Your task to perform on an android device: turn off improve location accuracy Image 0: 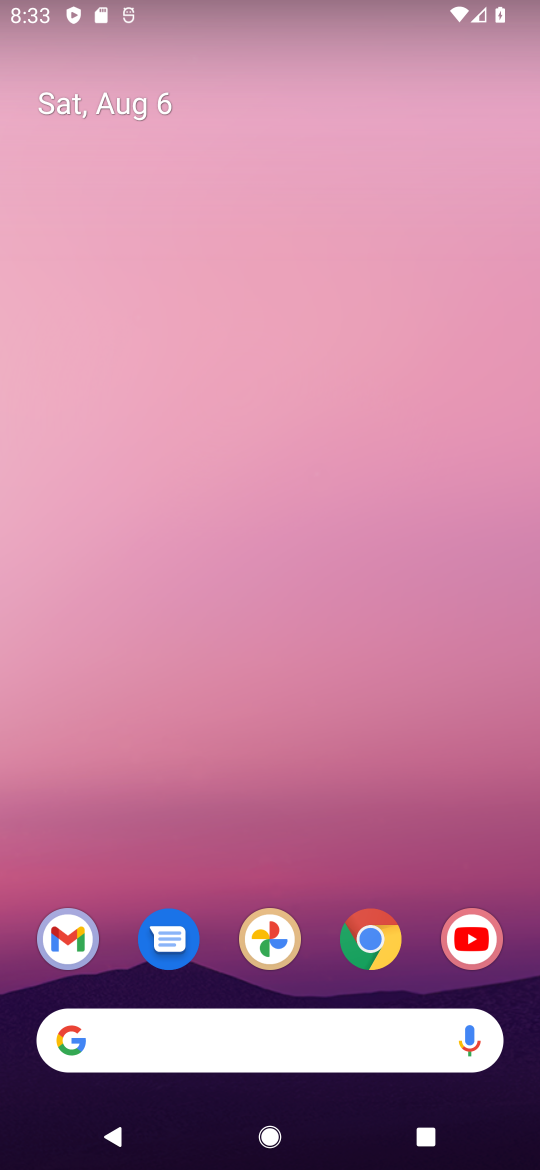
Step 0: drag from (261, 1033) to (270, 121)
Your task to perform on an android device: turn off improve location accuracy Image 1: 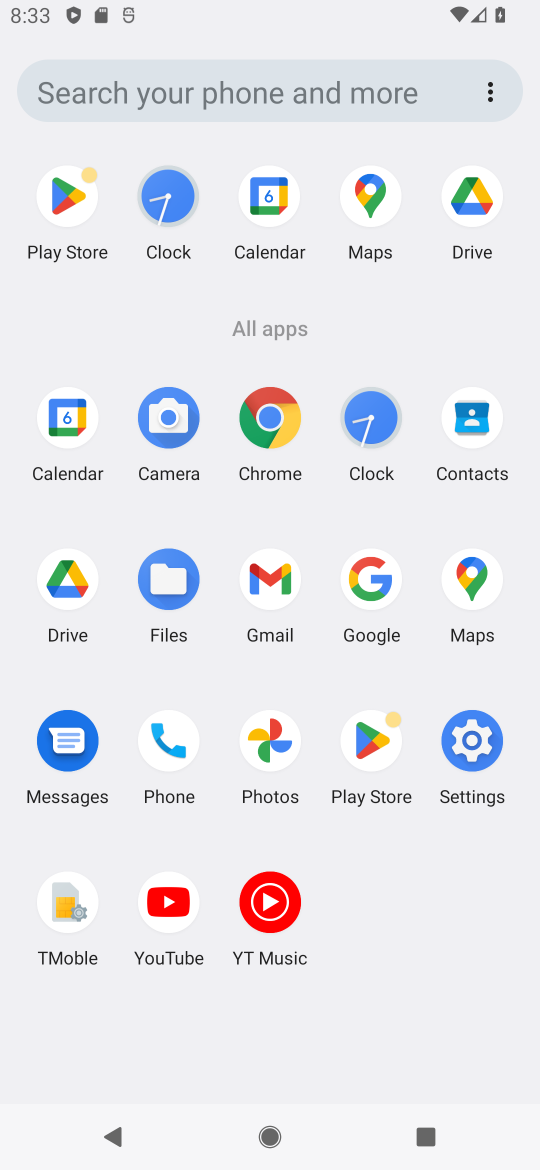
Step 1: click (472, 747)
Your task to perform on an android device: turn off improve location accuracy Image 2: 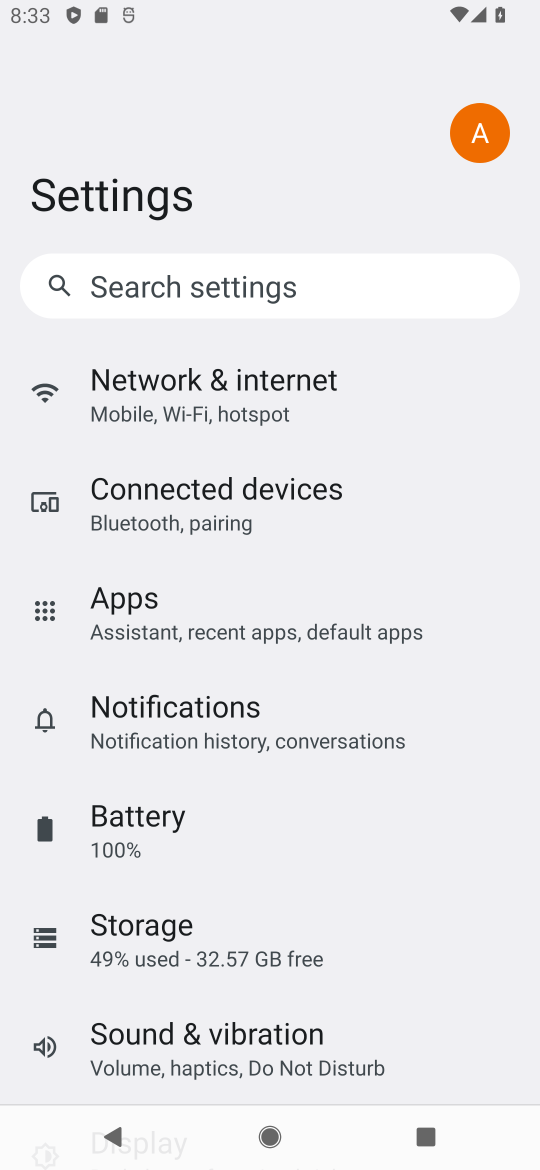
Step 2: drag from (160, 886) to (123, 181)
Your task to perform on an android device: turn off improve location accuracy Image 3: 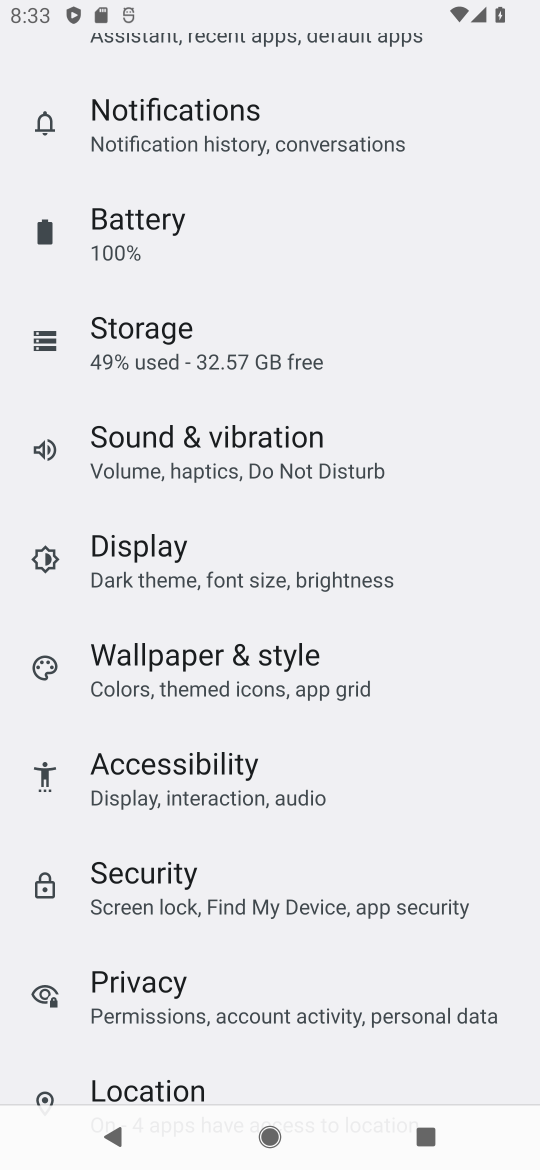
Step 3: click (92, 1074)
Your task to perform on an android device: turn off improve location accuracy Image 4: 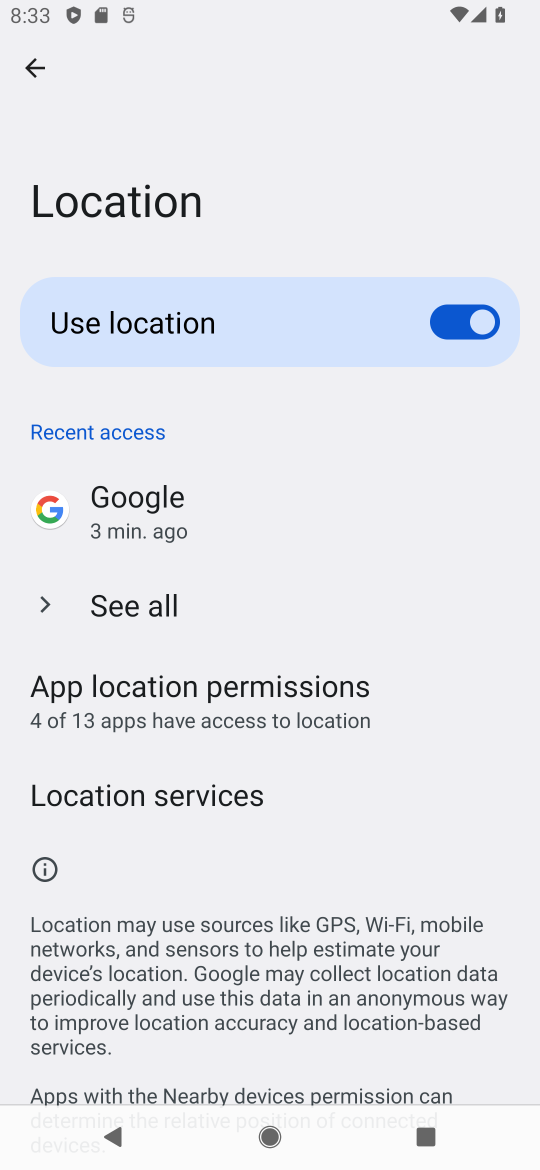
Step 4: click (171, 782)
Your task to perform on an android device: turn off improve location accuracy Image 5: 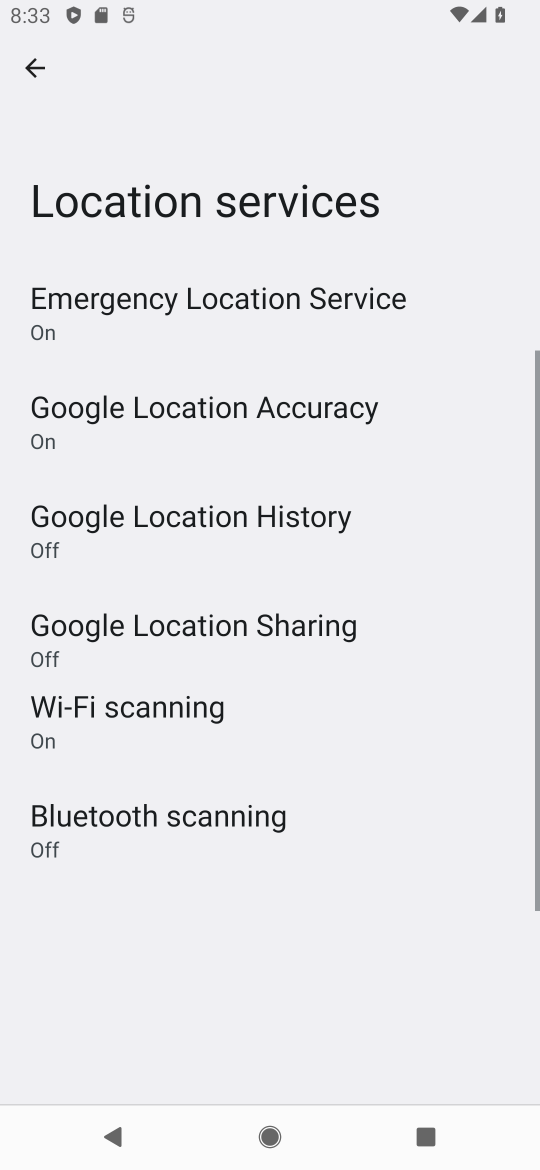
Step 5: click (231, 438)
Your task to perform on an android device: turn off improve location accuracy Image 6: 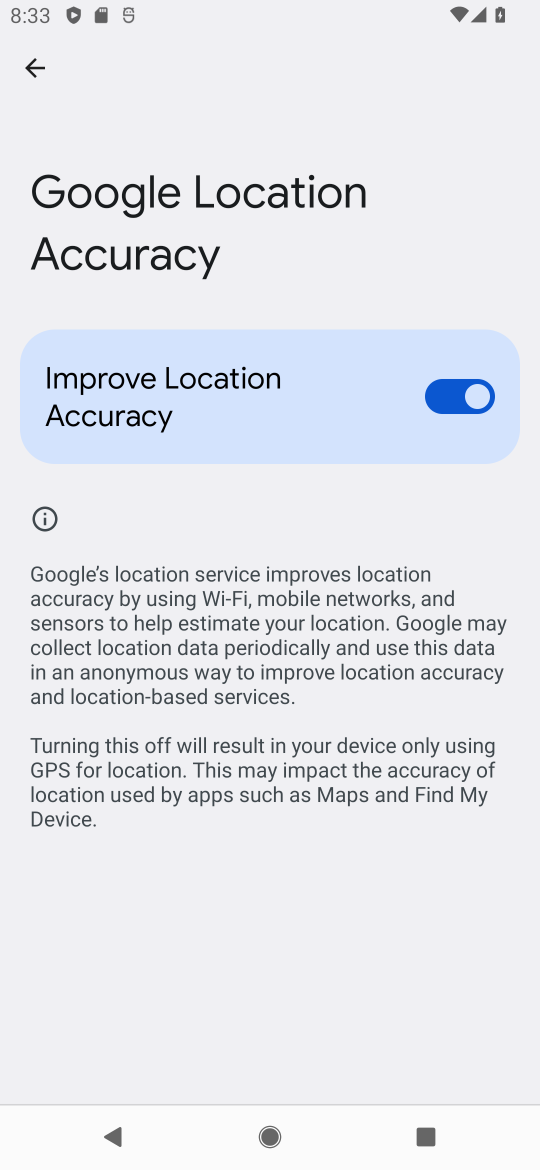
Step 6: click (447, 391)
Your task to perform on an android device: turn off improve location accuracy Image 7: 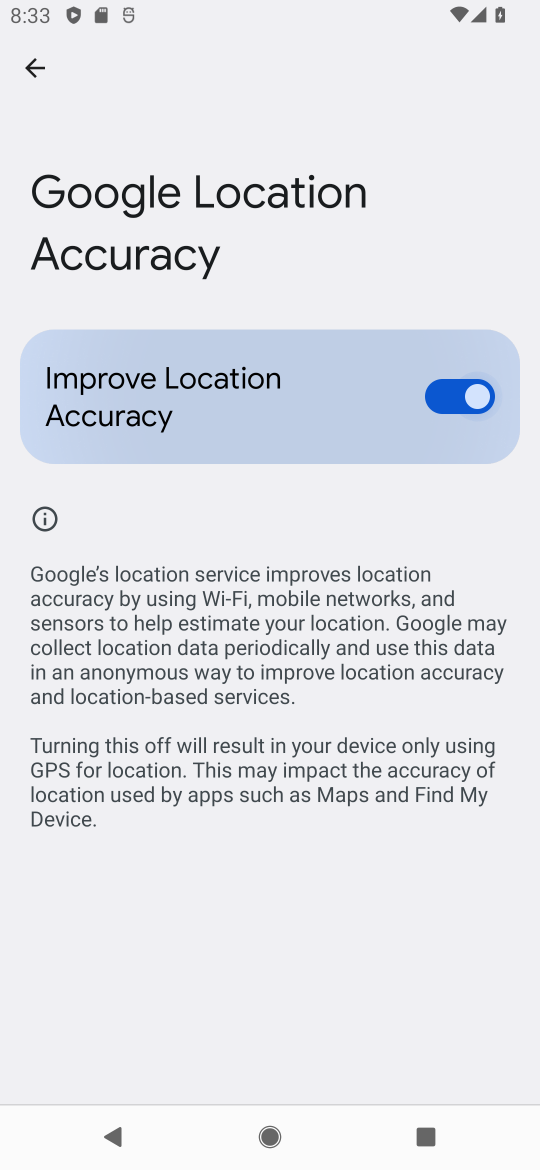
Step 7: task complete